Your task to perform on an android device: install app "Lyft - Rideshare, Bikes, Scooters & Transit" Image 0: 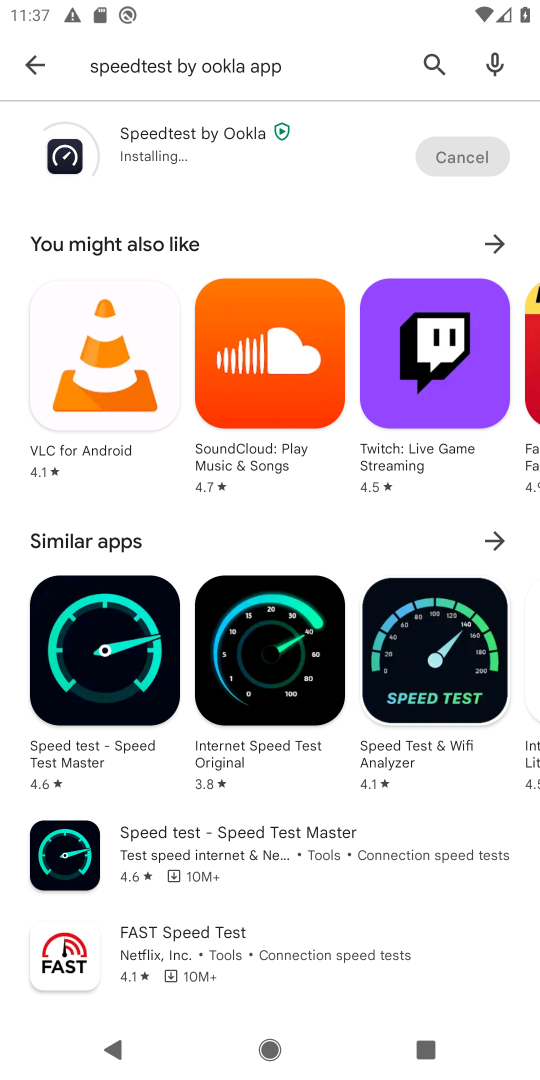
Step 0: click (36, 65)
Your task to perform on an android device: install app "Lyft - Rideshare, Bikes, Scooters & Transit" Image 1: 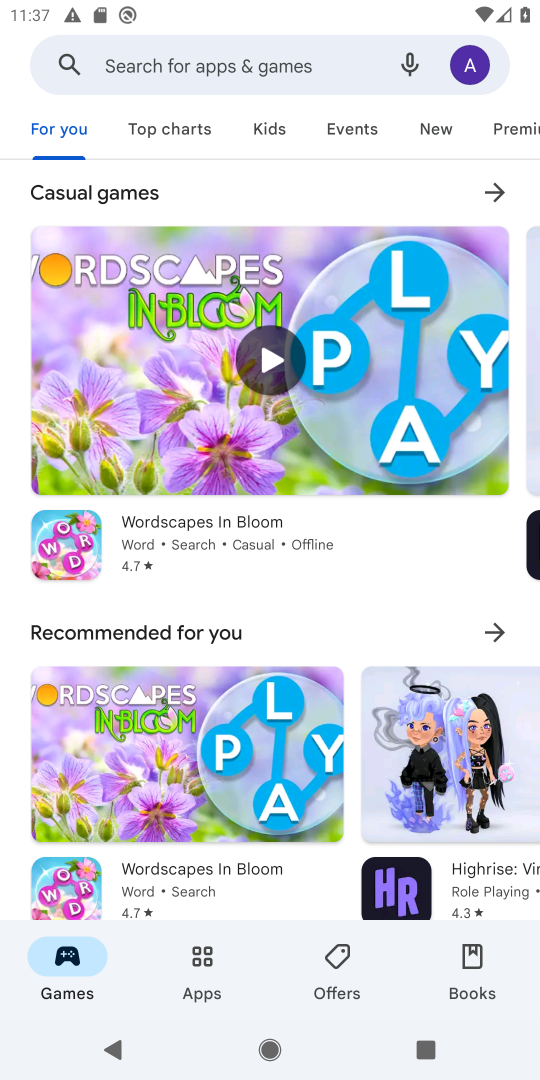
Step 1: click (254, 52)
Your task to perform on an android device: install app "Lyft - Rideshare, Bikes, Scooters & Transit" Image 2: 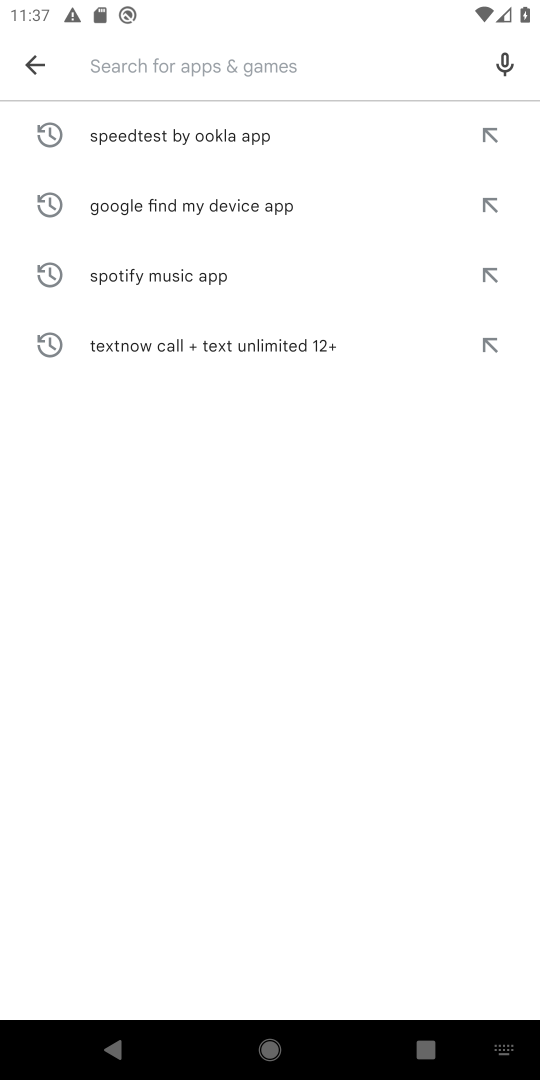
Step 2: type "Lyft - Rideshare, Bikes, Scooters & Transit "
Your task to perform on an android device: install app "Lyft - Rideshare, Bikes, Scooters & Transit" Image 3: 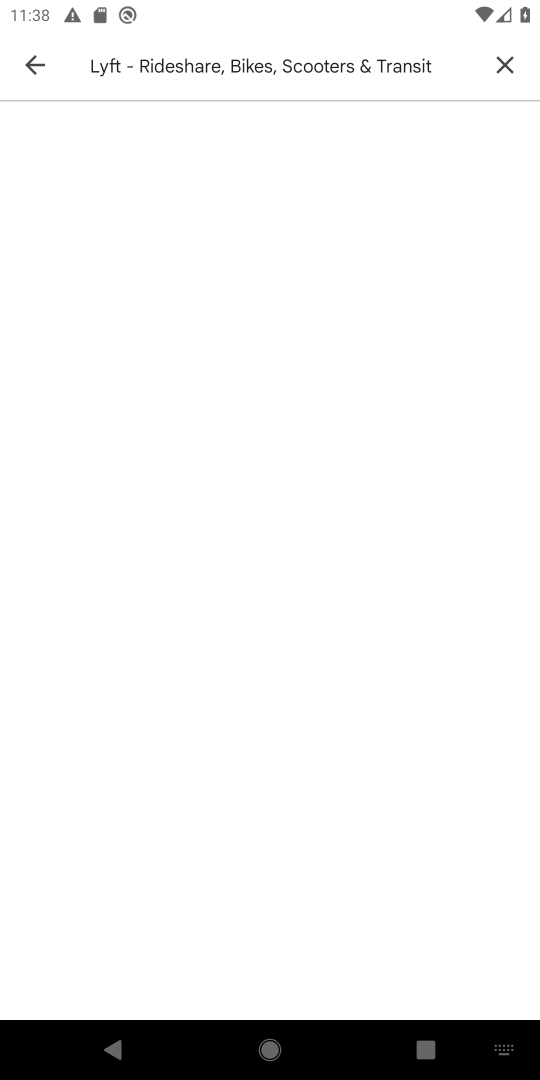
Step 3: click (505, 62)
Your task to perform on an android device: install app "Lyft - Rideshare, Bikes, Scooters & Transit" Image 4: 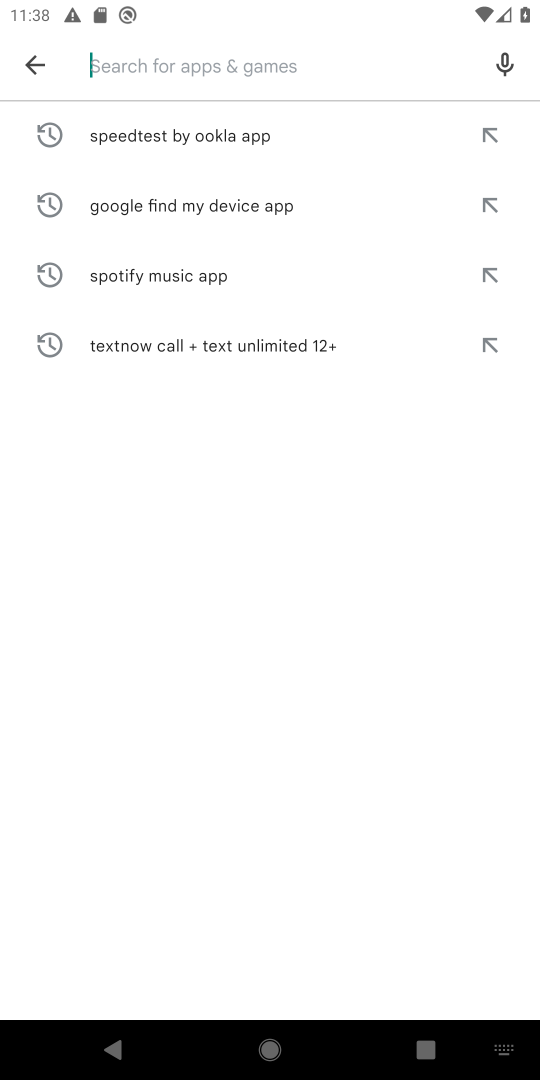
Step 4: click (217, 66)
Your task to perform on an android device: install app "Lyft - Rideshare, Bikes, Scooters & Transit" Image 5: 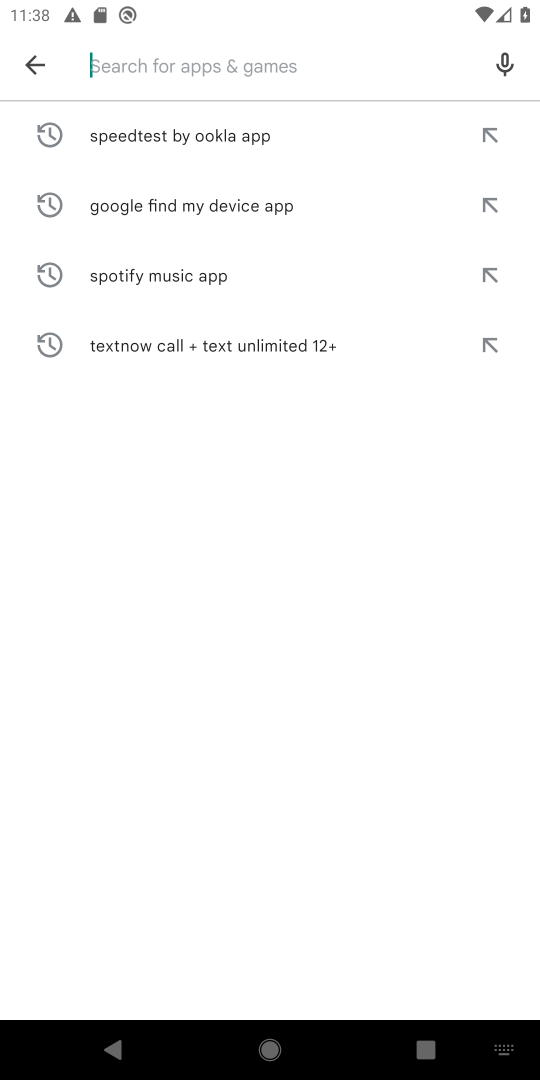
Step 5: type "Lyft "
Your task to perform on an android device: install app "Lyft - Rideshare, Bikes, Scooters & Transit" Image 6: 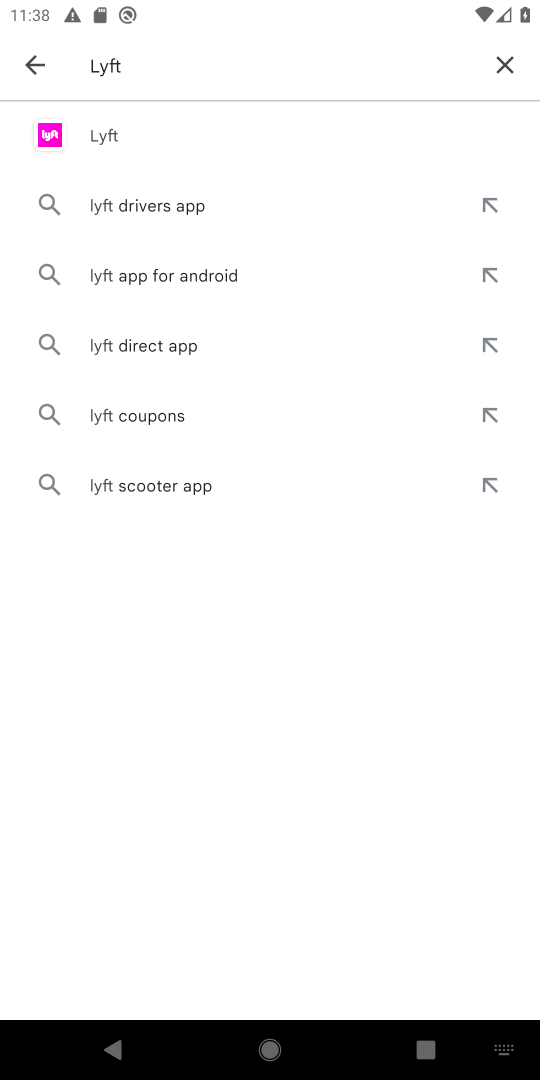
Step 6: click (111, 126)
Your task to perform on an android device: install app "Lyft - Rideshare, Bikes, Scooters & Transit" Image 7: 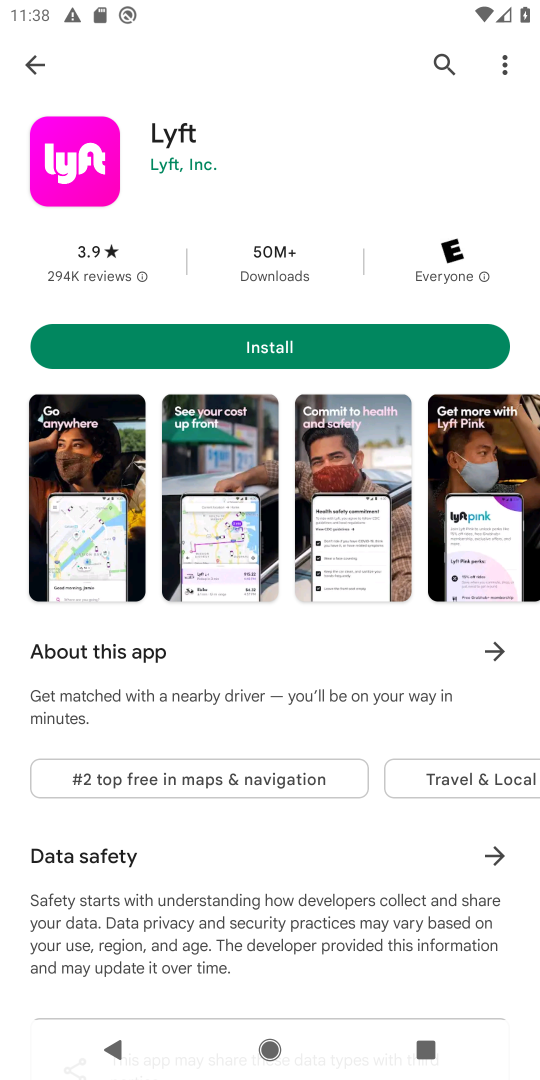
Step 7: click (243, 326)
Your task to perform on an android device: install app "Lyft - Rideshare, Bikes, Scooters & Transit" Image 8: 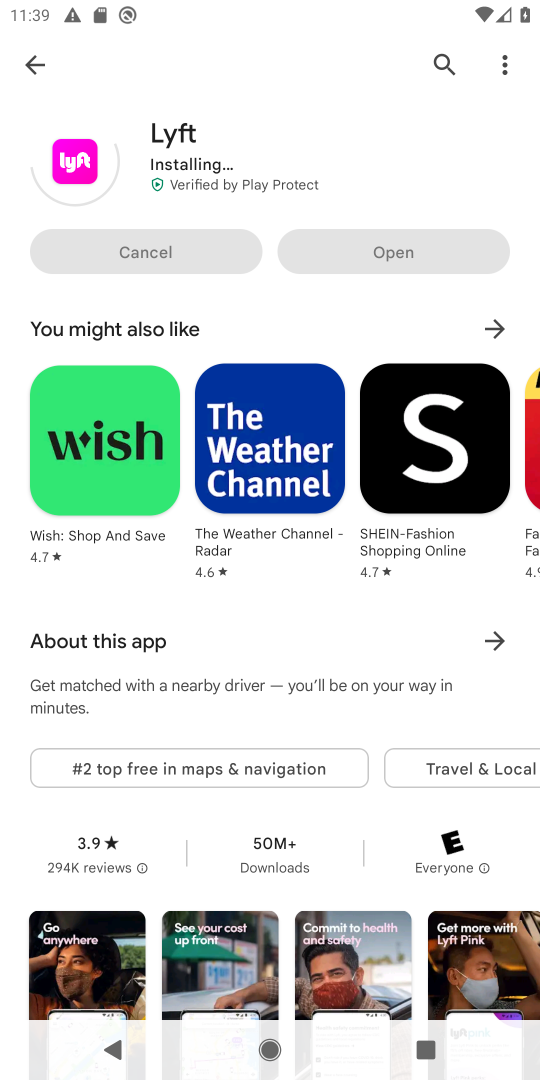
Step 8: task complete